Your task to perform on an android device: Go to eBay Image 0: 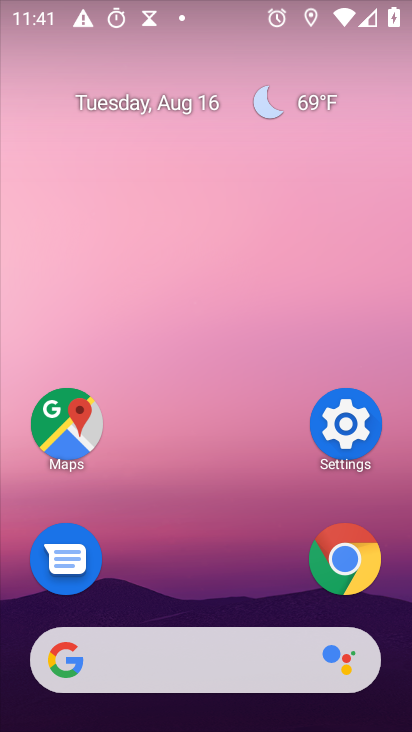
Step 0: press home button
Your task to perform on an android device: Go to eBay Image 1: 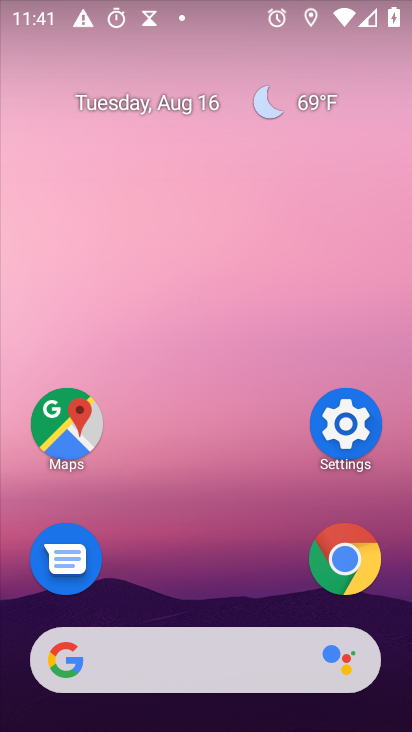
Step 1: click (345, 569)
Your task to perform on an android device: Go to eBay Image 2: 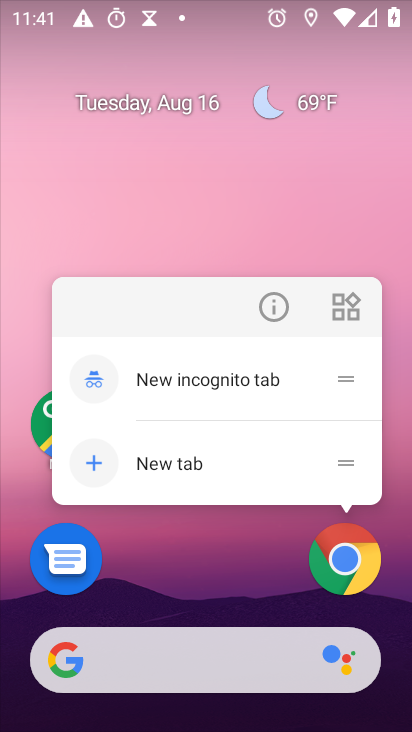
Step 2: click (355, 564)
Your task to perform on an android device: Go to eBay Image 3: 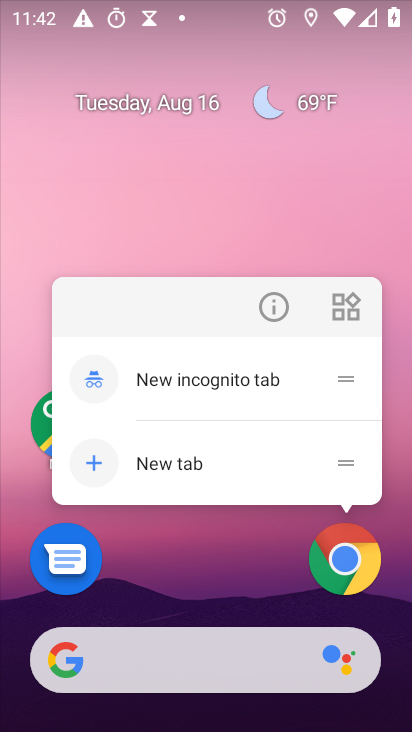
Step 3: click (343, 565)
Your task to perform on an android device: Go to eBay Image 4: 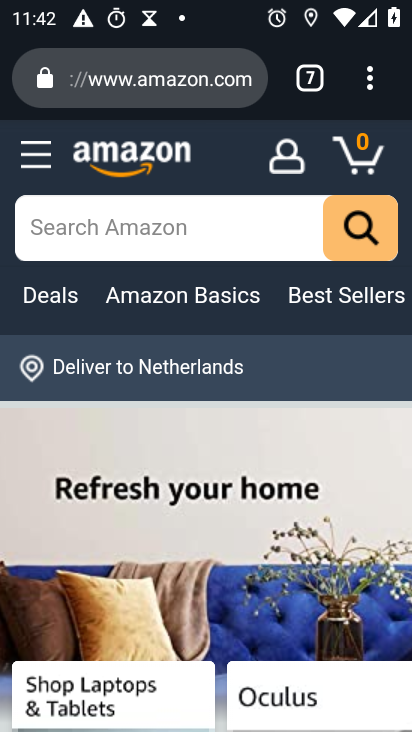
Step 4: drag from (371, 71) to (288, 159)
Your task to perform on an android device: Go to eBay Image 5: 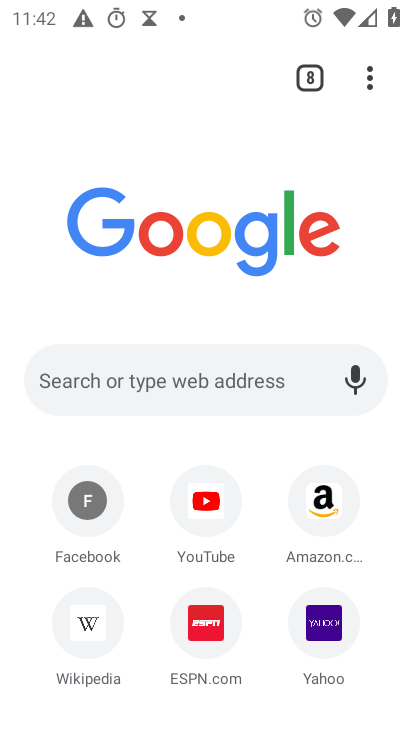
Step 5: drag from (238, 560) to (344, 125)
Your task to perform on an android device: Go to eBay Image 6: 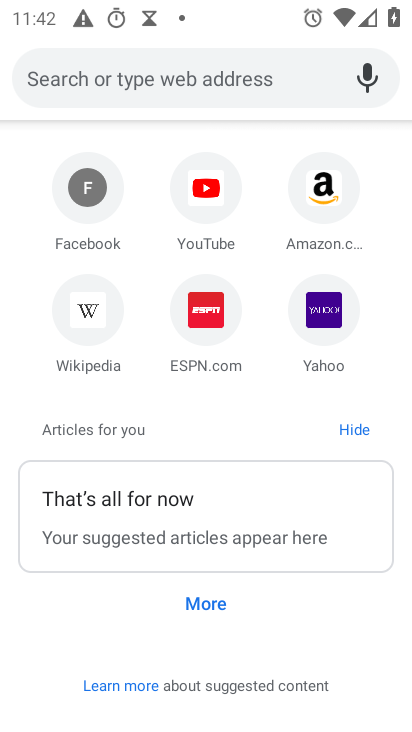
Step 6: drag from (263, 357) to (222, 668)
Your task to perform on an android device: Go to eBay Image 7: 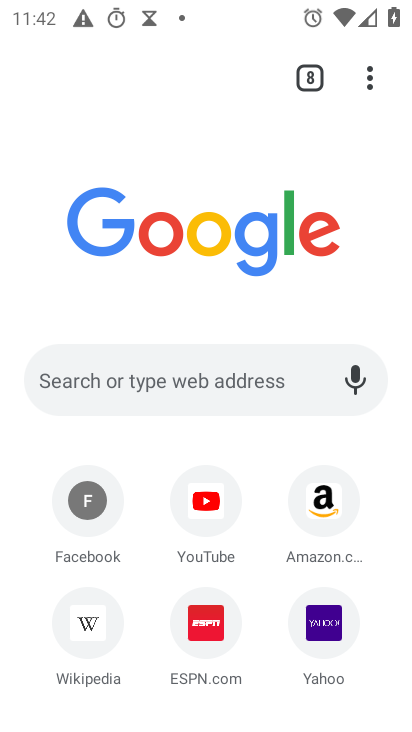
Step 7: click (125, 380)
Your task to perform on an android device: Go to eBay Image 8: 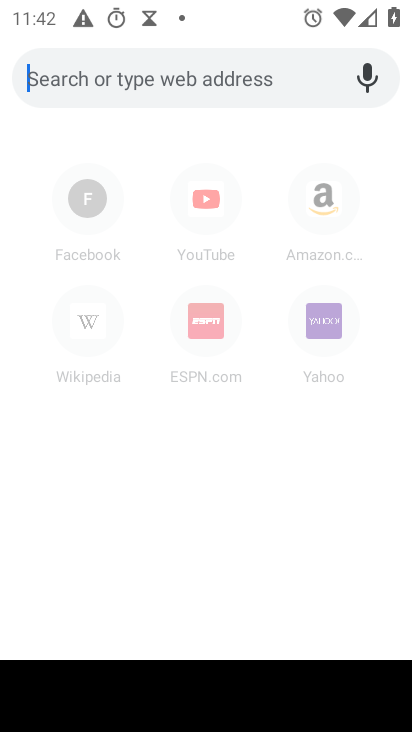
Step 8: type "eBay"
Your task to perform on an android device: Go to eBay Image 9: 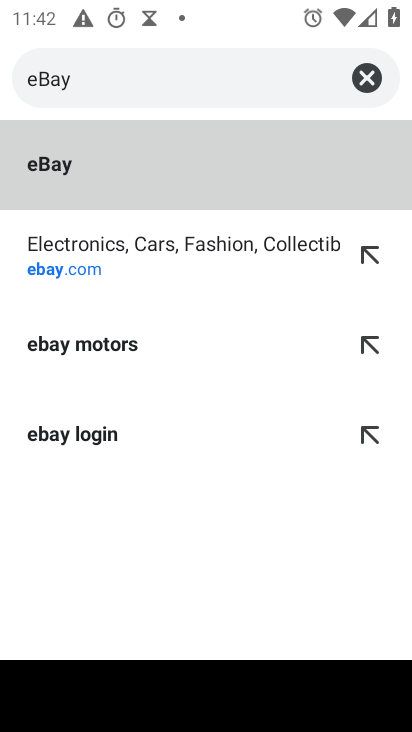
Step 9: click (132, 258)
Your task to perform on an android device: Go to eBay Image 10: 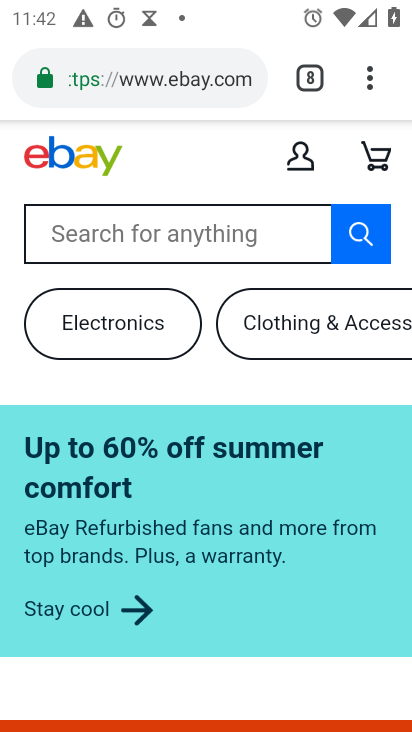
Step 10: task complete